Your task to perform on an android device: change notifications settings Image 0: 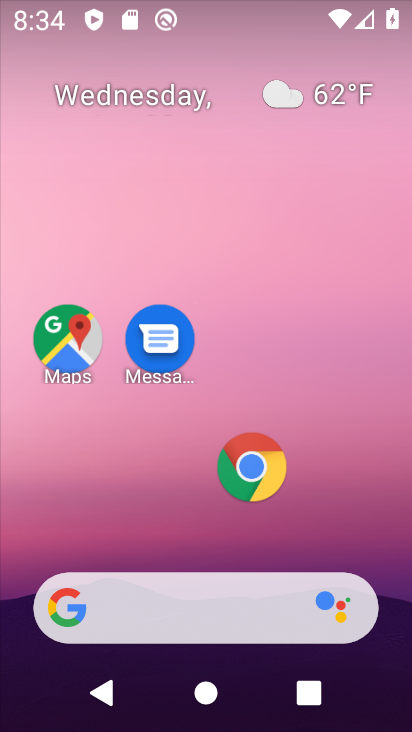
Step 0: drag from (166, 503) to (132, 146)
Your task to perform on an android device: change notifications settings Image 1: 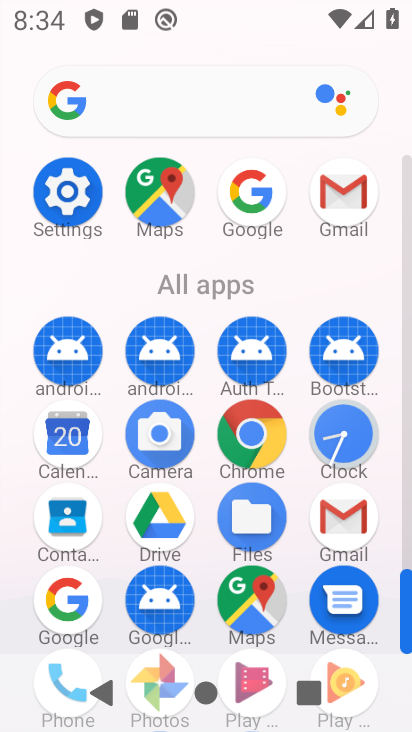
Step 1: click (71, 188)
Your task to perform on an android device: change notifications settings Image 2: 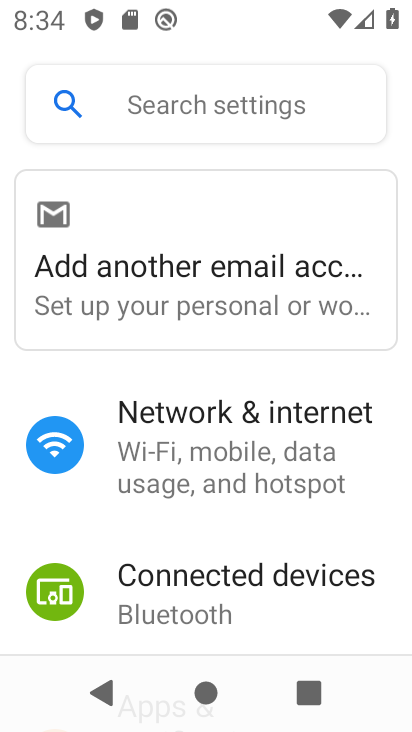
Step 2: drag from (271, 571) to (268, 315)
Your task to perform on an android device: change notifications settings Image 3: 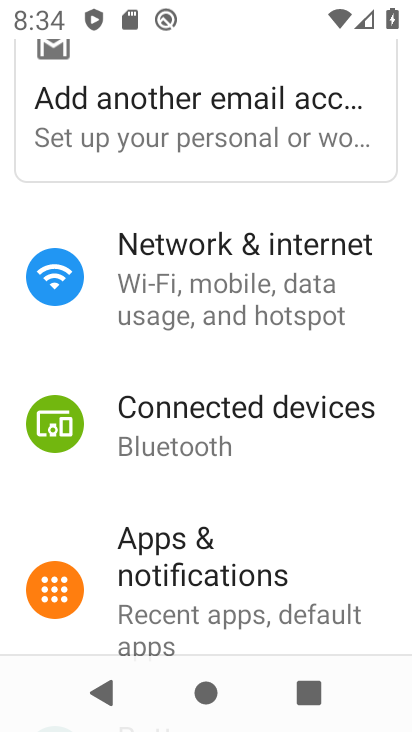
Step 3: click (229, 554)
Your task to perform on an android device: change notifications settings Image 4: 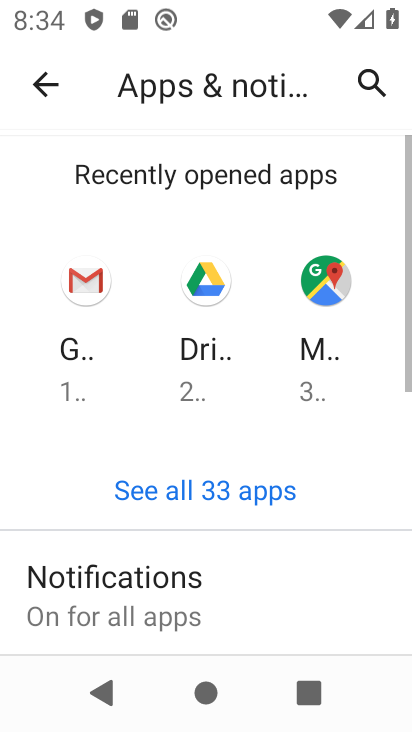
Step 4: click (132, 591)
Your task to perform on an android device: change notifications settings Image 5: 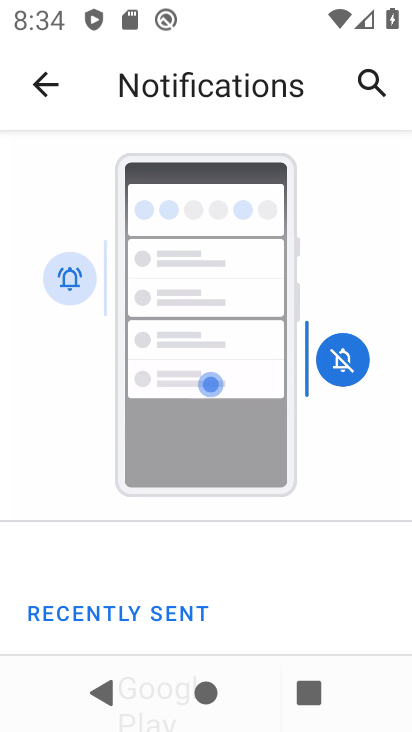
Step 5: drag from (248, 484) to (247, 89)
Your task to perform on an android device: change notifications settings Image 6: 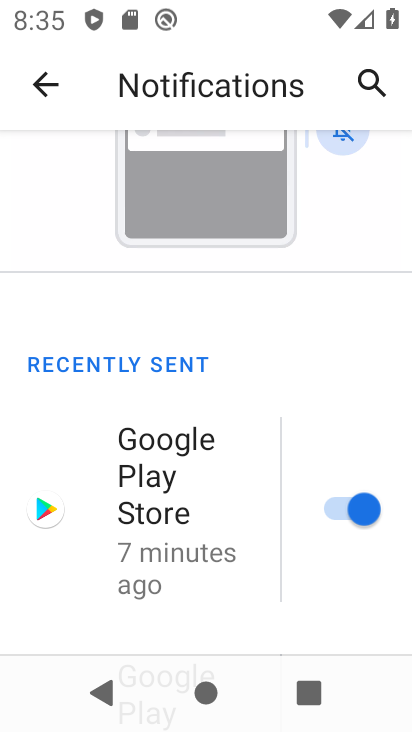
Step 6: drag from (249, 466) to (299, 111)
Your task to perform on an android device: change notifications settings Image 7: 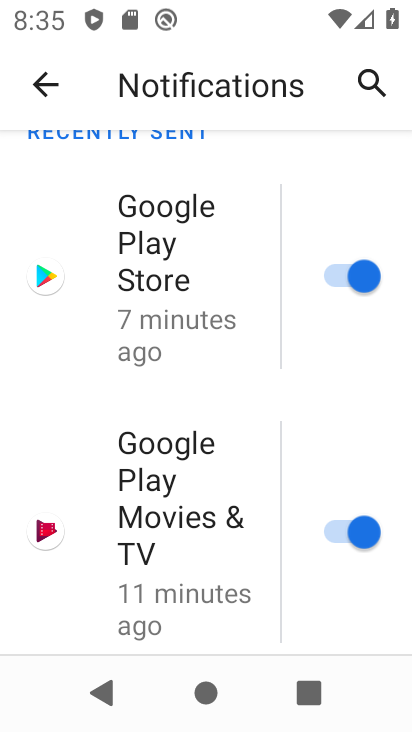
Step 7: drag from (204, 562) to (208, 190)
Your task to perform on an android device: change notifications settings Image 8: 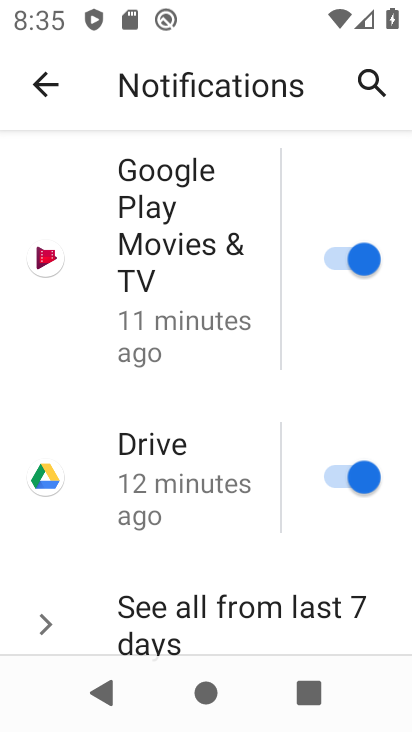
Step 8: click (153, 628)
Your task to perform on an android device: change notifications settings Image 9: 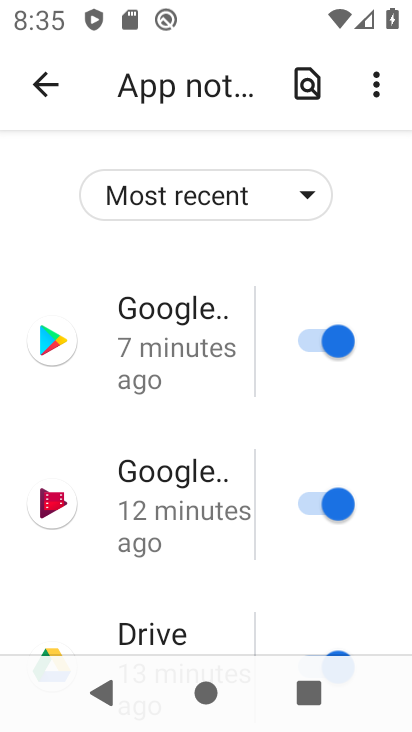
Step 9: click (338, 334)
Your task to perform on an android device: change notifications settings Image 10: 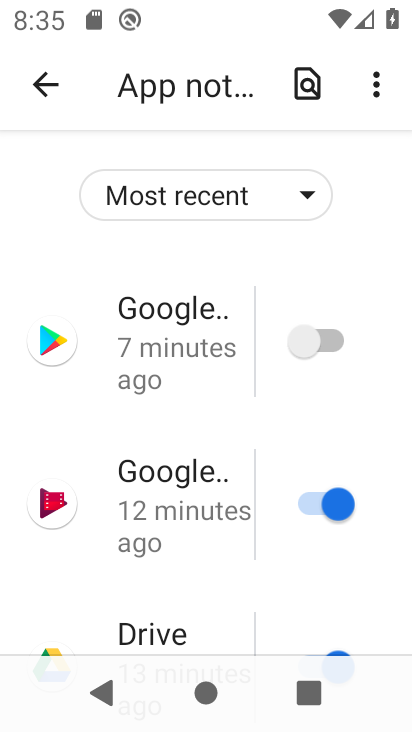
Step 10: click (337, 519)
Your task to perform on an android device: change notifications settings Image 11: 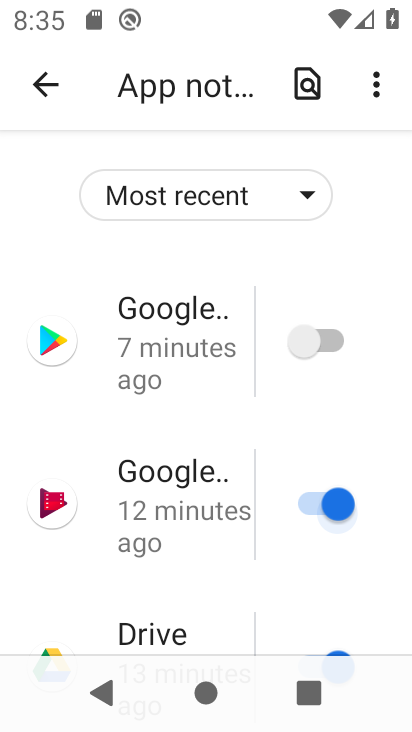
Step 11: drag from (265, 576) to (230, 343)
Your task to perform on an android device: change notifications settings Image 12: 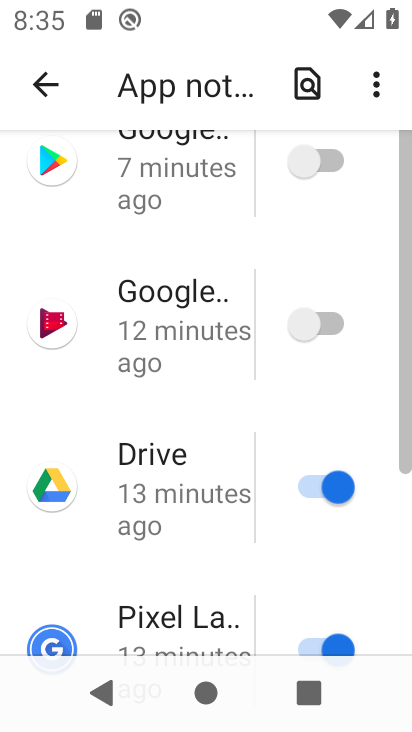
Step 12: click (338, 479)
Your task to perform on an android device: change notifications settings Image 13: 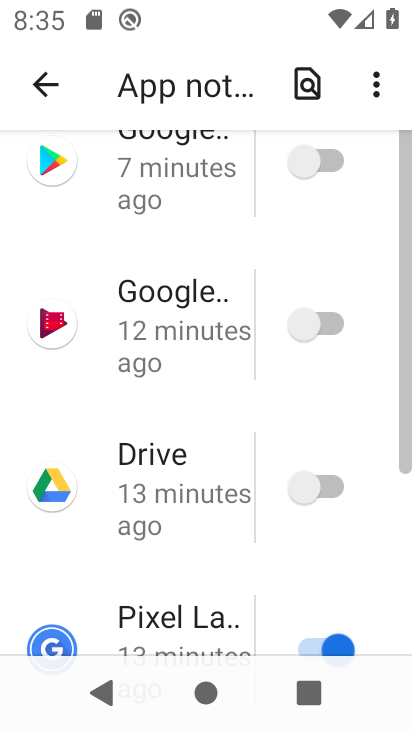
Step 13: click (328, 647)
Your task to perform on an android device: change notifications settings Image 14: 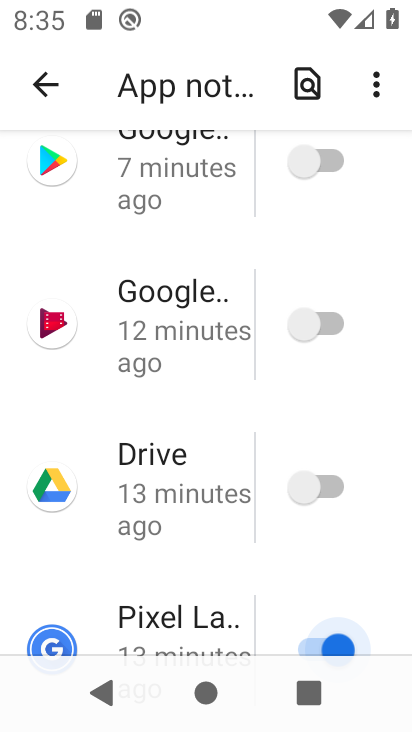
Step 14: drag from (226, 545) to (256, 74)
Your task to perform on an android device: change notifications settings Image 15: 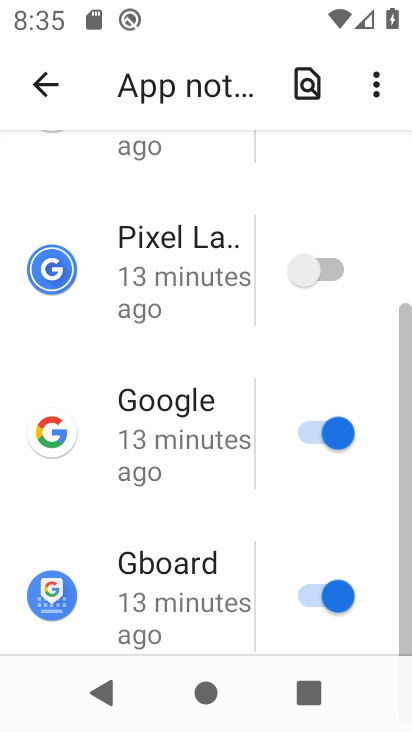
Step 15: click (331, 602)
Your task to perform on an android device: change notifications settings Image 16: 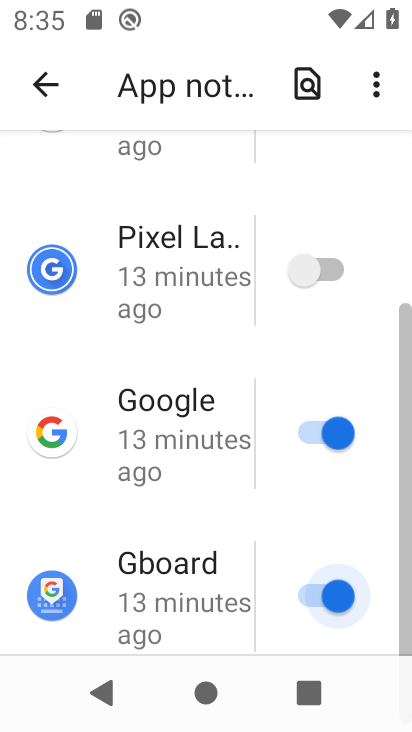
Step 16: click (315, 439)
Your task to perform on an android device: change notifications settings Image 17: 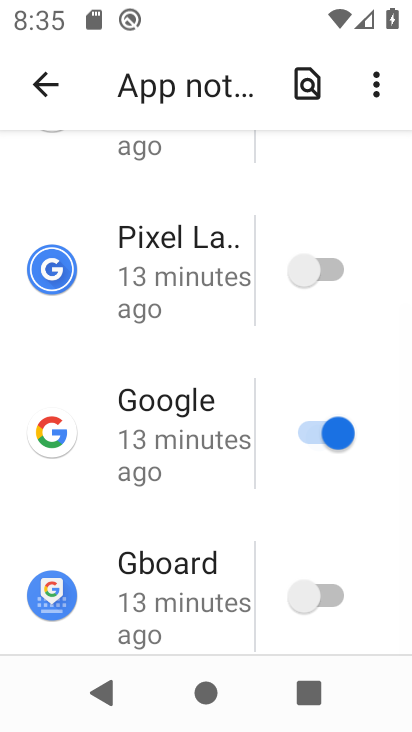
Step 17: task complete